Your task to perform on an android device: turn on improve location accuracy Image 0: 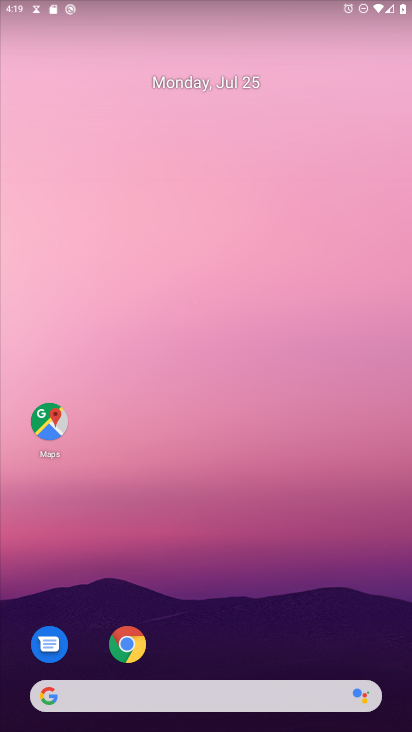
Step 0: press home button
Your task to perform on an android device: turn on improve location accuracy Image 1: 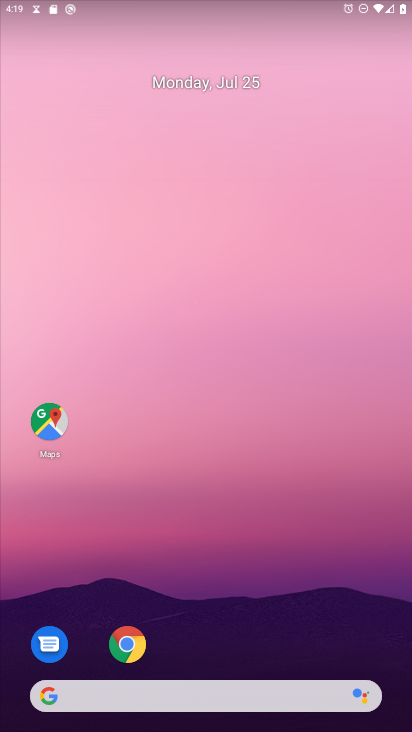
Step 1: drag from (245, 524) to (147, 176)
Your task to perform on an android device: turn on improve location accuracy Image 2: 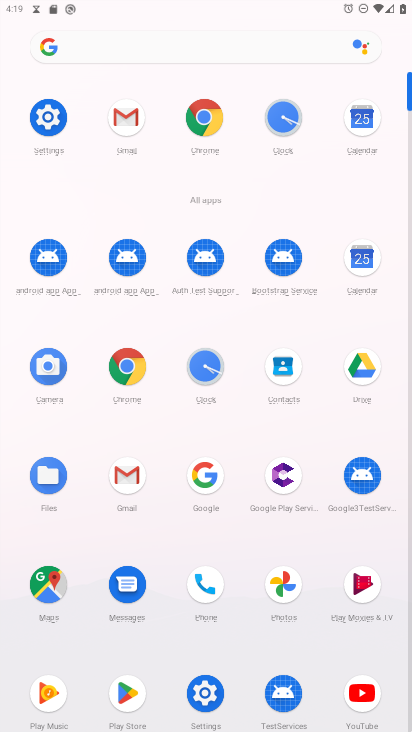
Step 2: click (51, 113)
Your task to perform on an android device: turn on improve location accuracy Image 3: 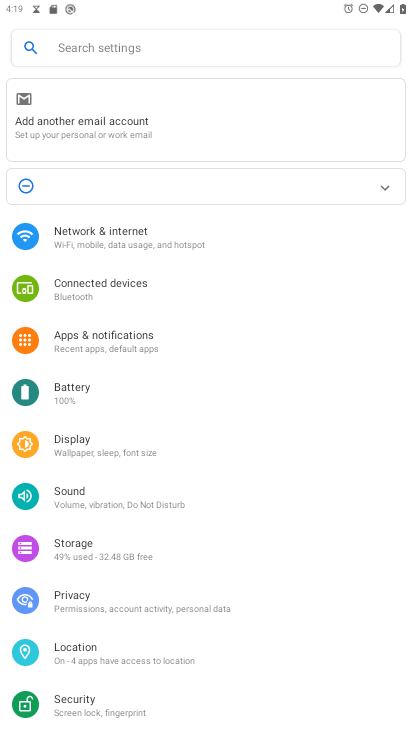
Step 3: click (89, 641)
Your task to perform on an android device: turn on improve location accuracy Image 4: 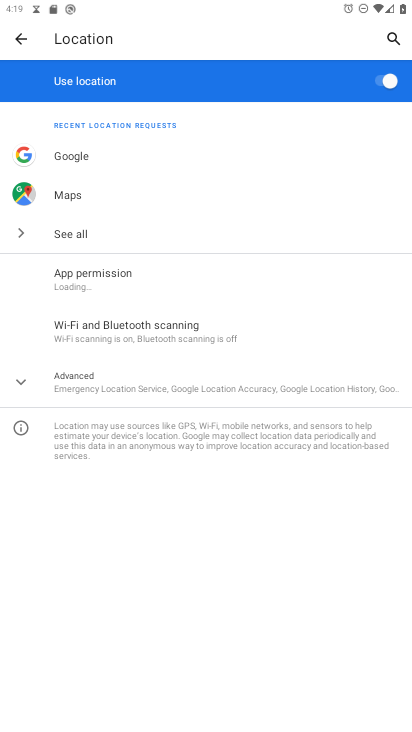
Step 4: click (26, 380)
Your task to perform on an android device: turn on improve location accuracy Image 5: 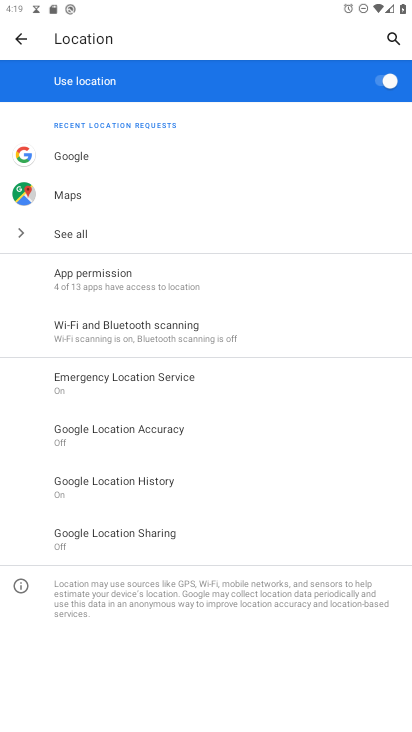
Step 5: click (139, 435)
Your task to perform on an android device: turn on improve location accuracy Image 6: 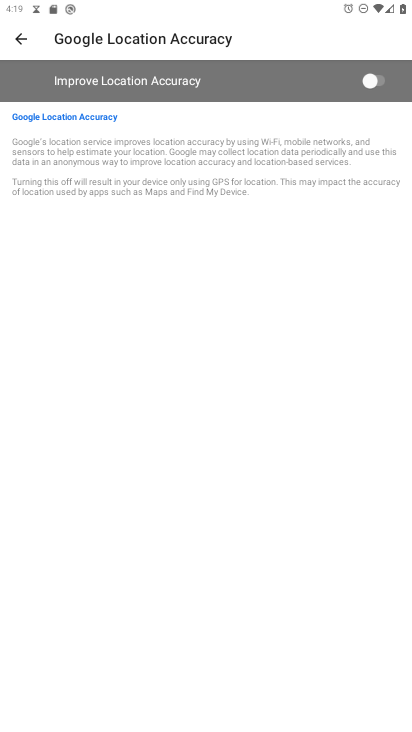
Step 6: click (372, 85)
Your task to perform on an android device: turn on improve location accuracy Image 7: 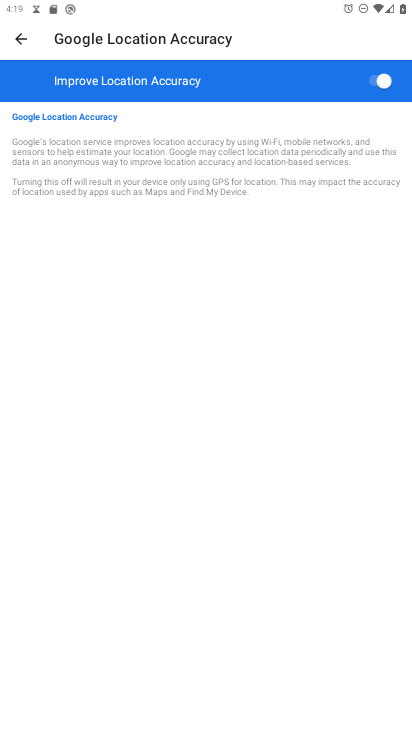
Step 7: task complete